Your task to perform on an android device: Open the web browser Image 0: 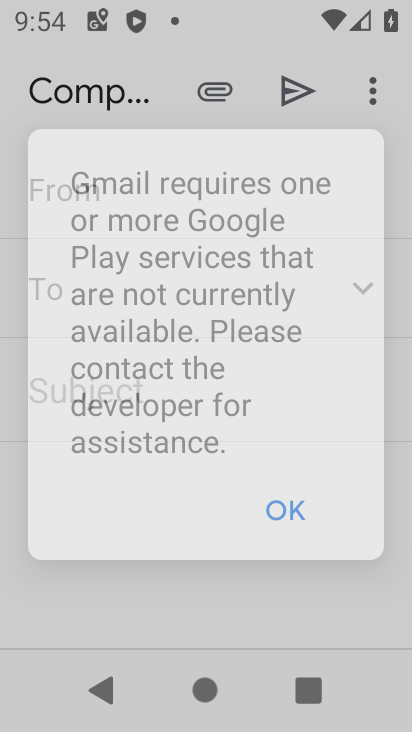
Step 0: press home button
Your task to perform on an android device: Open the web browser Image 1: 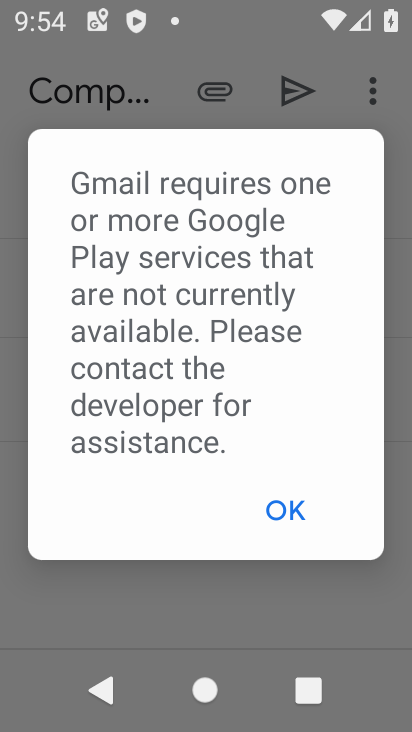
Step 1: click (397, 518)
Your task to perform on an android device: Open the web browser Image 2: 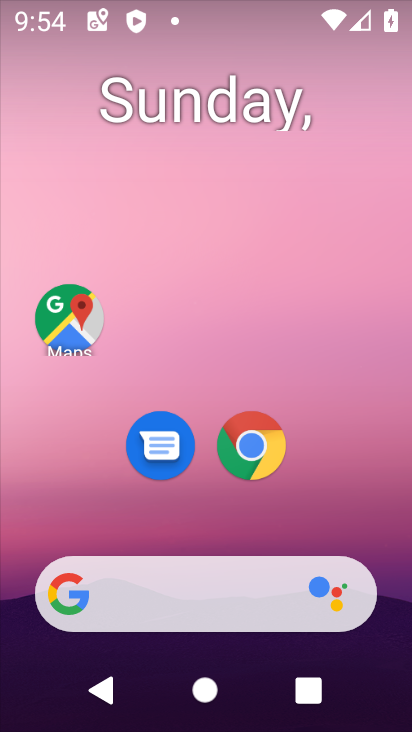
Step 2: click (257, 427)
Your task to perform on an android device: Open the web browser Image 3: 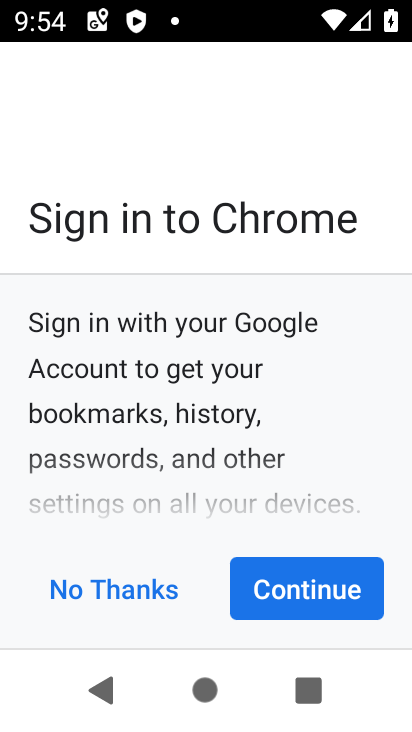
Step 3: click (312, 565)
Your task to perform on an android device: Open the web browser Image 4: 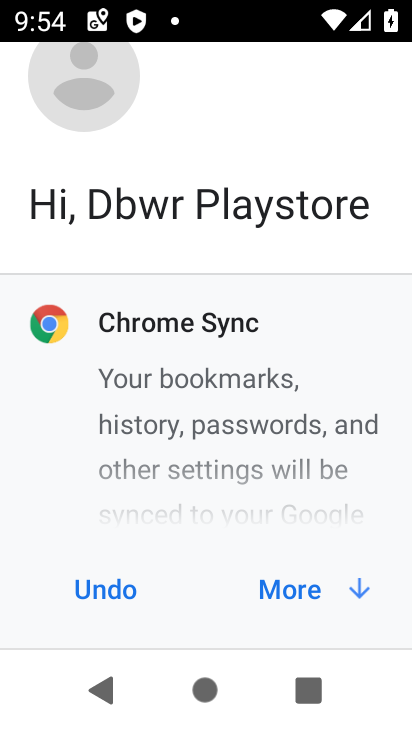
Step 4: click (312, 565)
Your task to perform on an android device: Open the web browser Image 5: 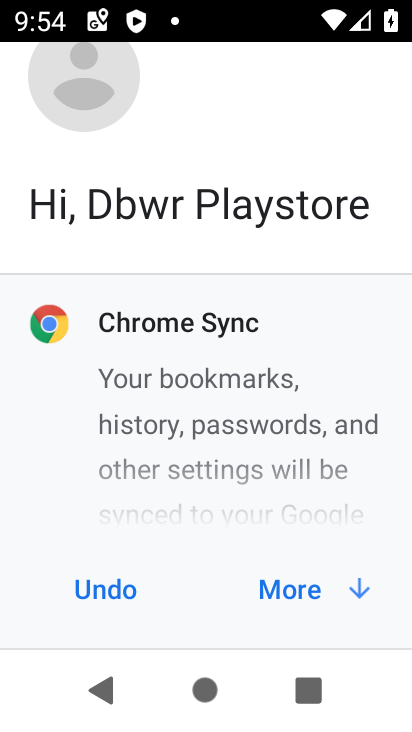
Step 5: click (312, 565)
Your task to perform on an android device: Open the web browser Image 6: 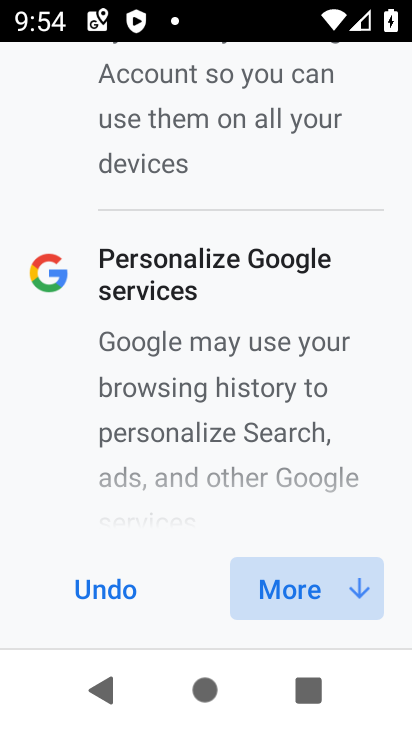
Step 6: click (312, 565)
Your task to perform on an android device: Open the web browser Image 7: 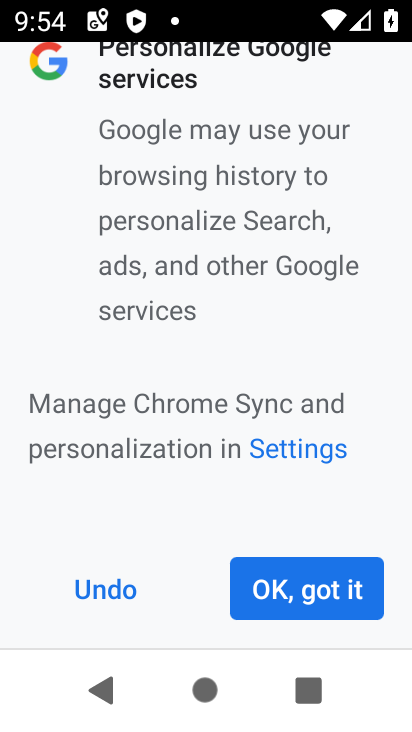
Step 7: click (312, 565)
Your task to perform on an android device: Open the web browser Image 8: 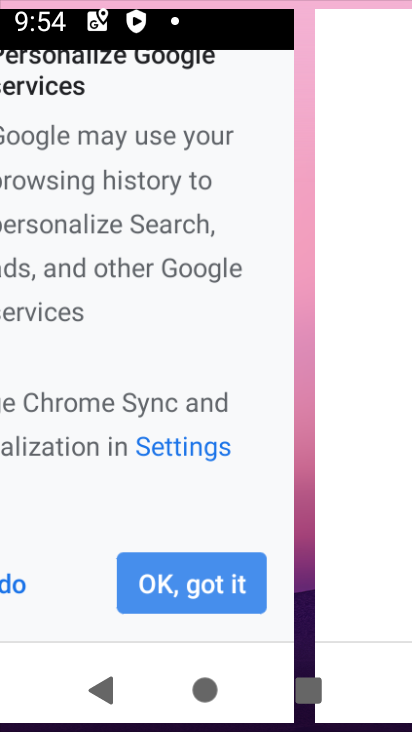
Step 8: click (312, 565)
Your task to perform on an android device: Open the web browser Image 9: 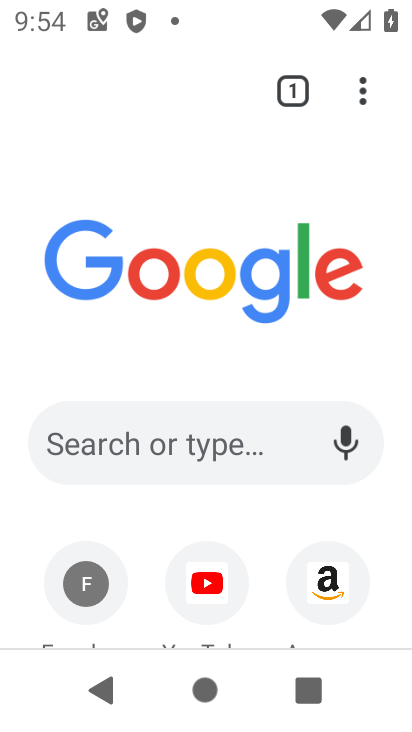
Step 9: click (203, 453)
Your task to perform on an android device: Open the web browser Image 10: 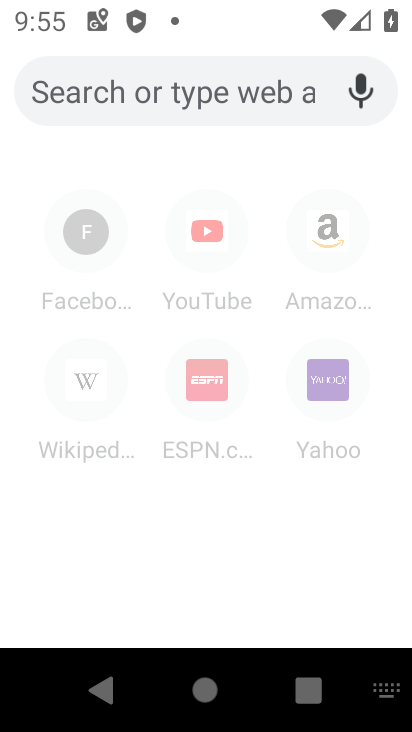
Step 10: type "web browser"
Your task to perform on an android device: Open the web browser Image 11: 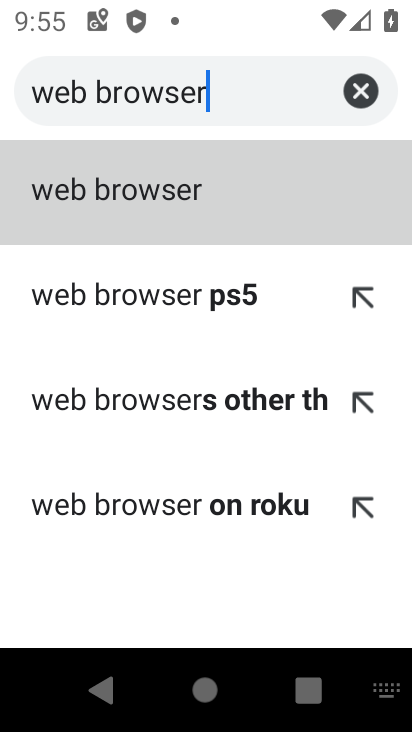
Step 11: click (128, 159)
Your task to perform on an android device: Open the web browser Image 12: 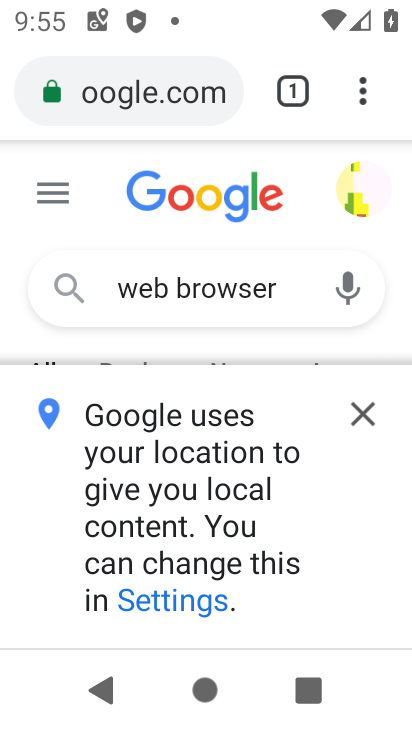
Step 12: click (361, 419)
Your task to perform on an android device: Open the web browser Image 13: 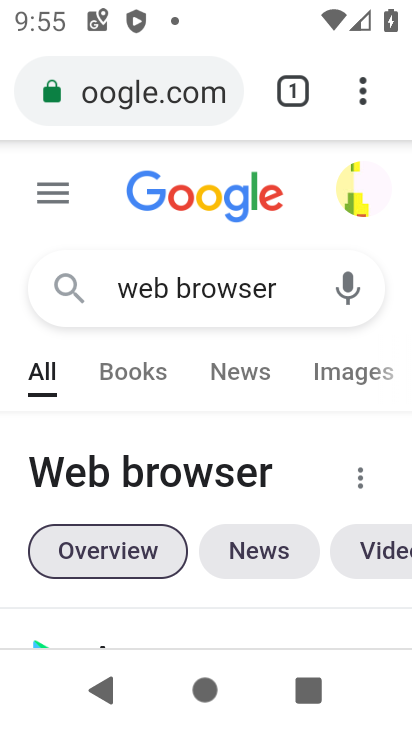
Step 13: task complete